Your task to perform on an android device: add a contact in the contacts app Image 0: 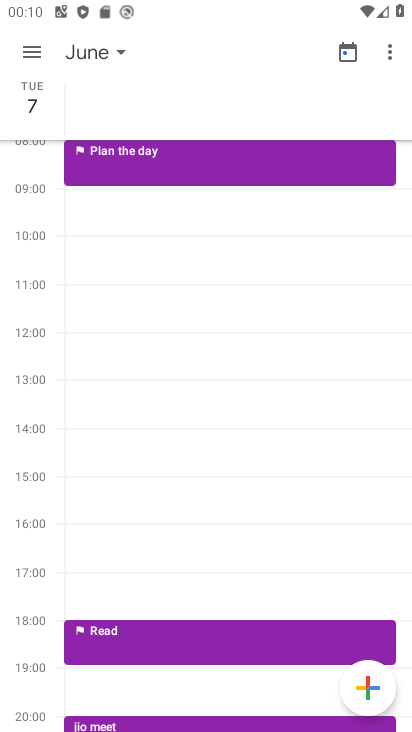
Step 0: press home button
Your task to perform on an android device: add a contact in the contacts app Image 1: 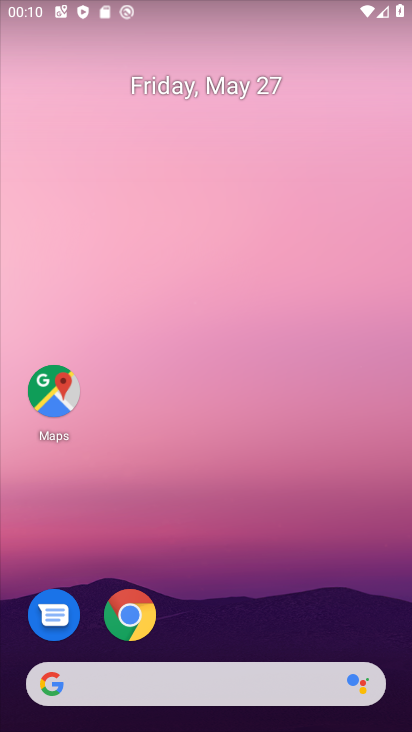
Step 1: drag from (337, 600) to (346, 270)
Your task to perform on an android device: add a contact in the contacts app Image 2: 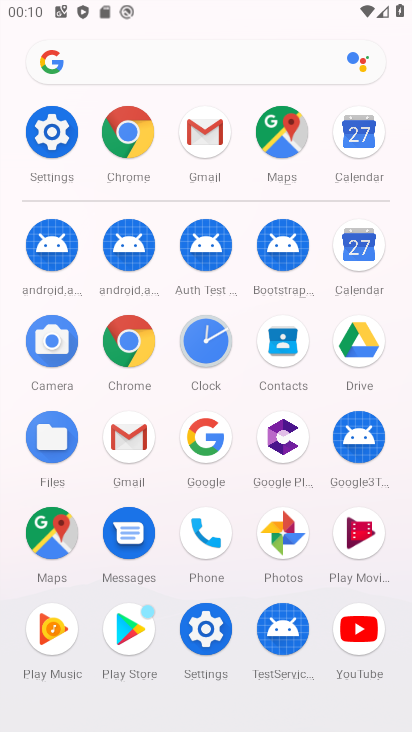
Step 2: click (286, 347)
Your task to perform on an android device: add a contact in the contacts app Image 3: 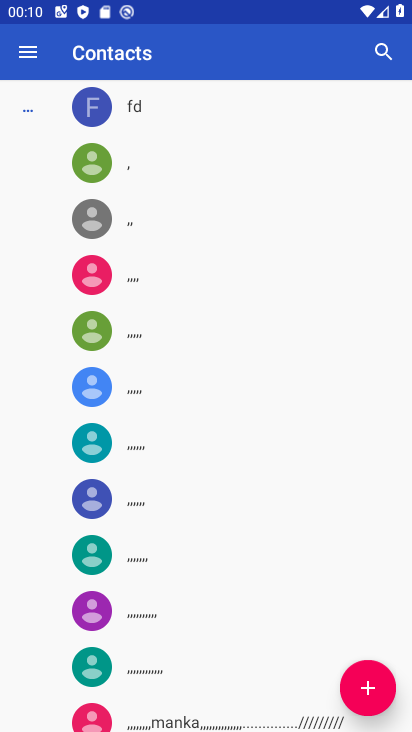
Step 3: click (381, 693)
Your task to perform on an android device: add a contact in the contacts app Image 4: 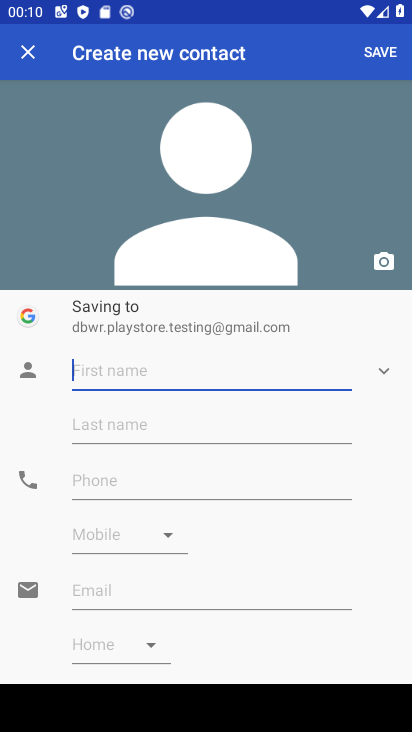
Step 4: click (240, 371)
Your task to perform on an android device: add a contact in the contacts app Image 5: 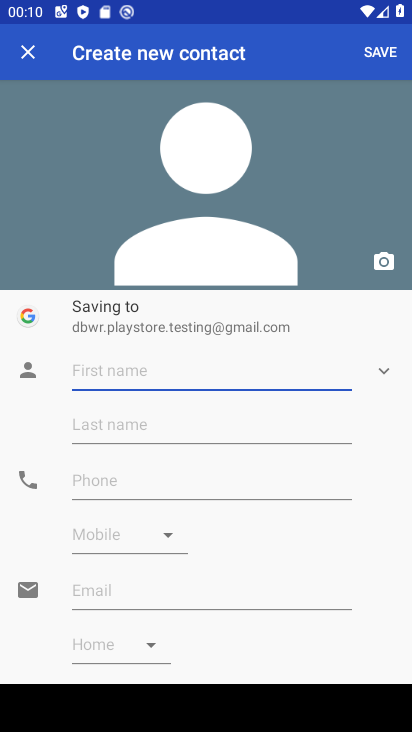
Step 5: type "looooooo"
Your task to perform on an android device: add a contact in the contacts app Image 6: 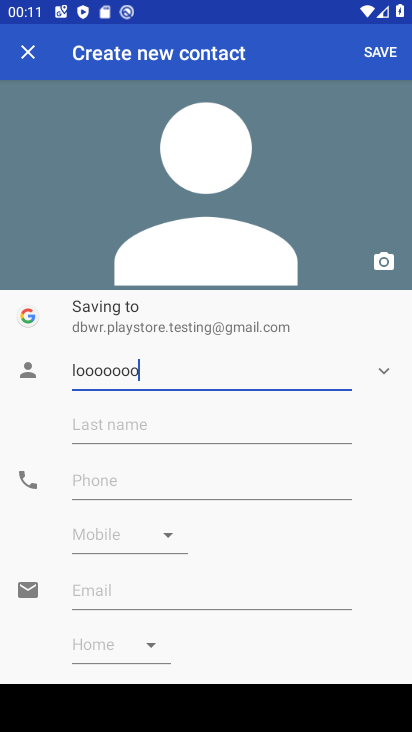
Step 6: click (260, 473)
Your task to perform on an android device: add a contact in the contacts app Image 7: 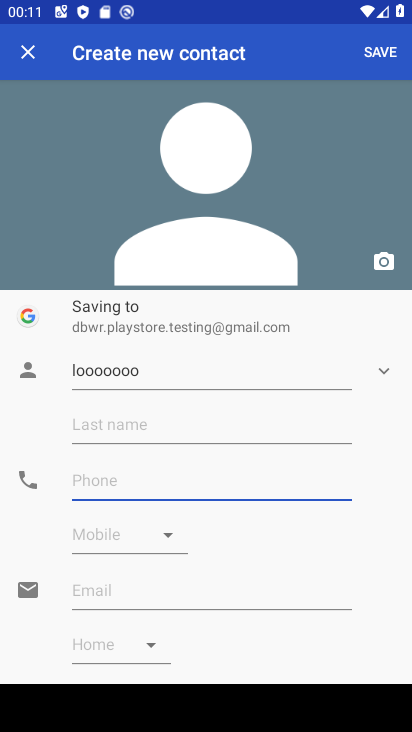
Step 7: type "1234444444"
Your task to perform on an android device: add a contact in the contacts app Image 8: 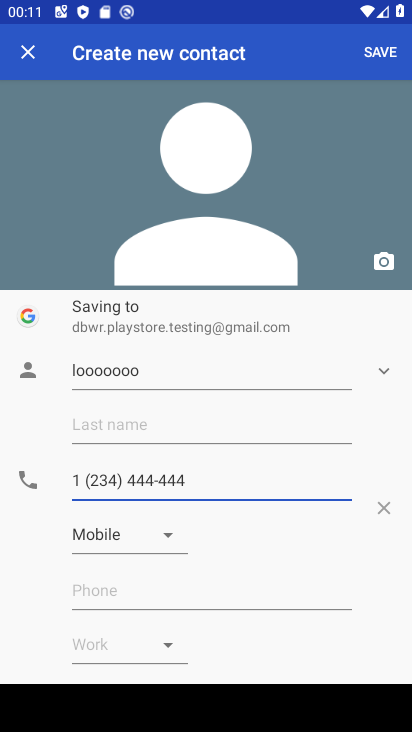
Step 8: click (380, 67)
Your task to perform on an android device: add a contact in the contacts app Image 9: 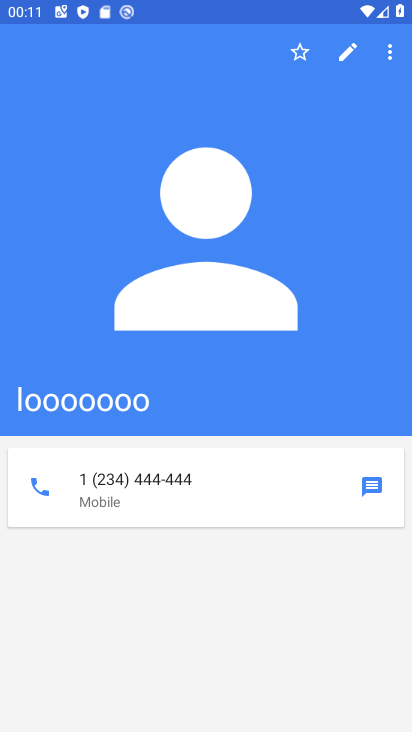
Step 9: task complete